Your task to perform on an android device: open app "Cash App" Image 0: 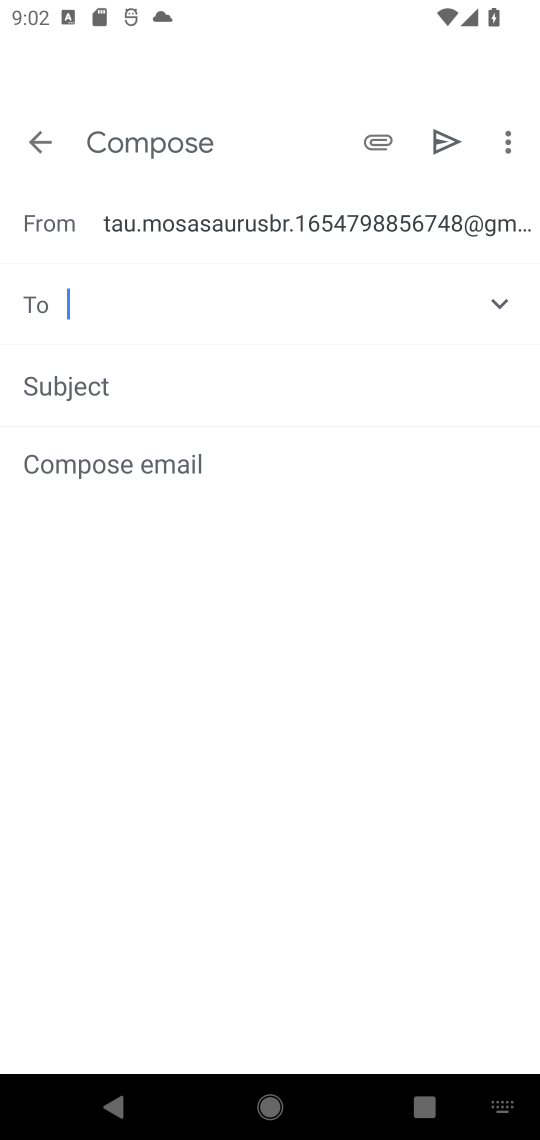
Step 0: press home button
Your task to perform on an android device: open app "Cash App" Image 1: 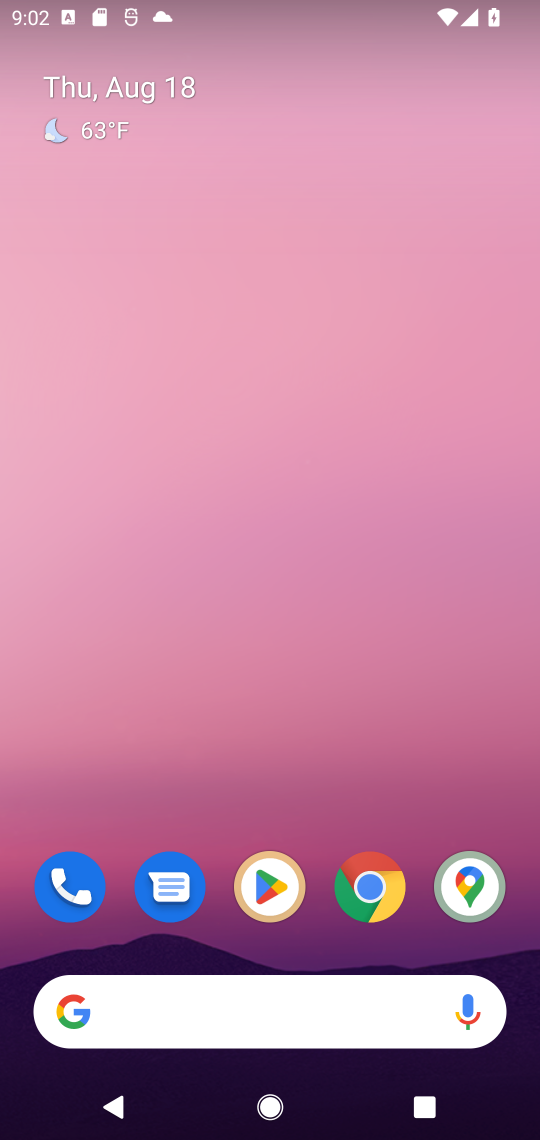
Step 1: click (262, 889)
Your task to perform on an android device: open app "Cash App" Image 2: 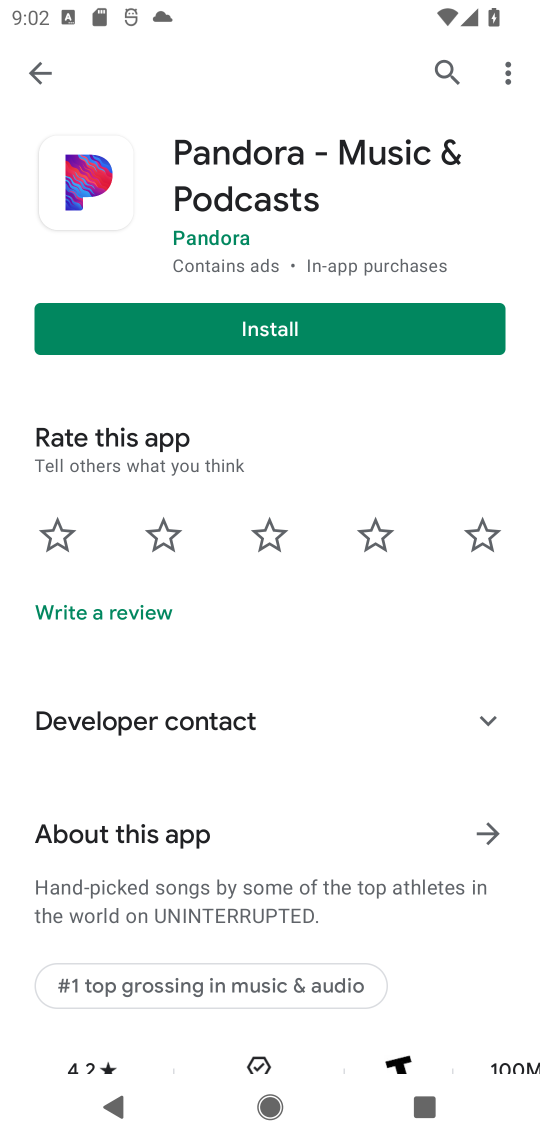
Step 2: click (445, 65)
Your task to perform on an android device: open app "Cash App" Image 3: 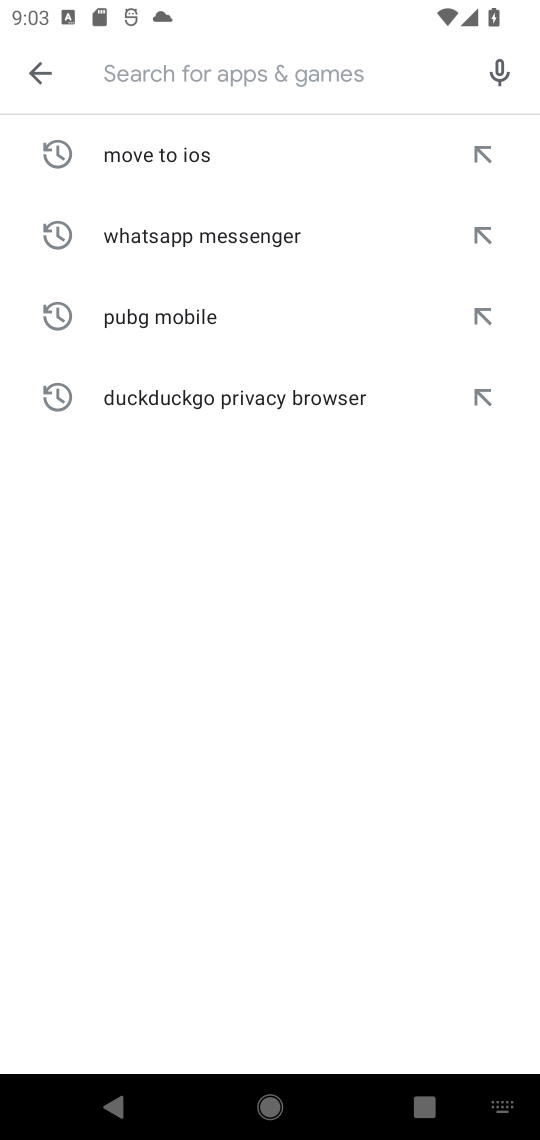
Step 3: type "CashApp"
Your task to perform on an android device: open app "Cash App" Image 4: 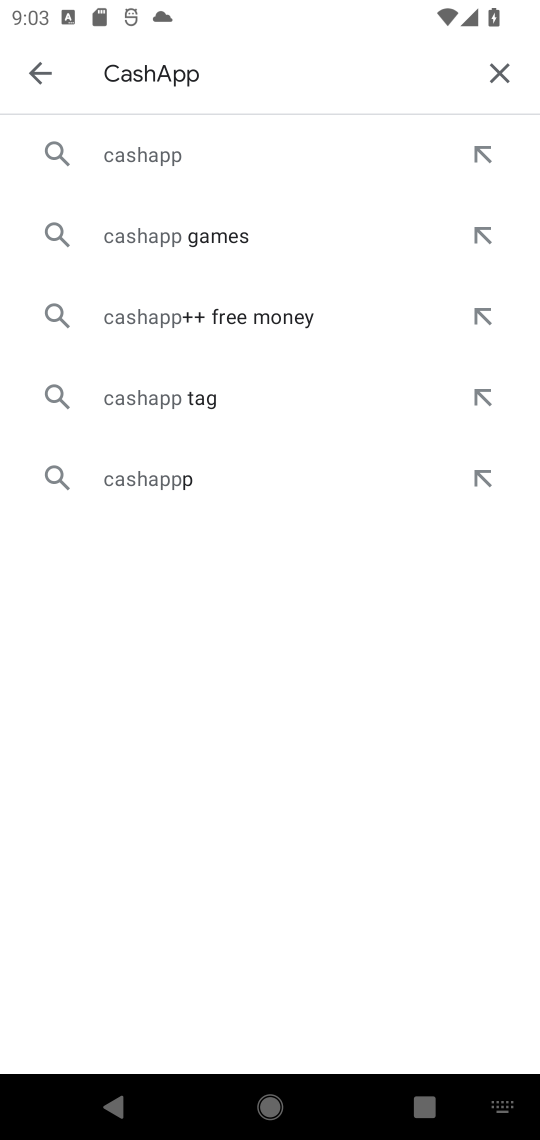
Step 4: click (112, 145)
Your task to perform on an android device: open app "Cash App" Image 5: 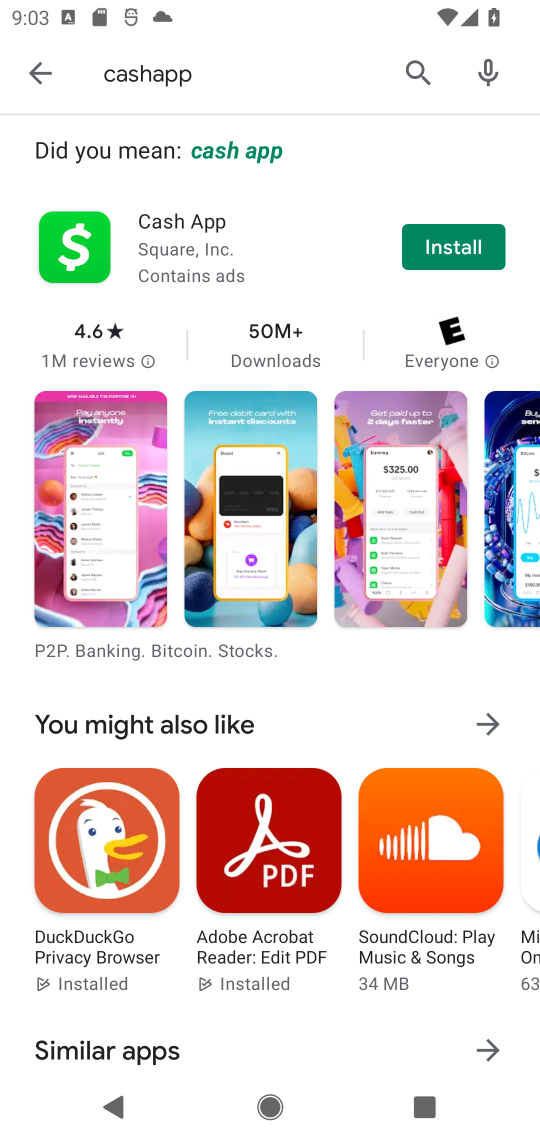
Step 5: task complete